Your task to perform on an android device: change the clock style Image 0: 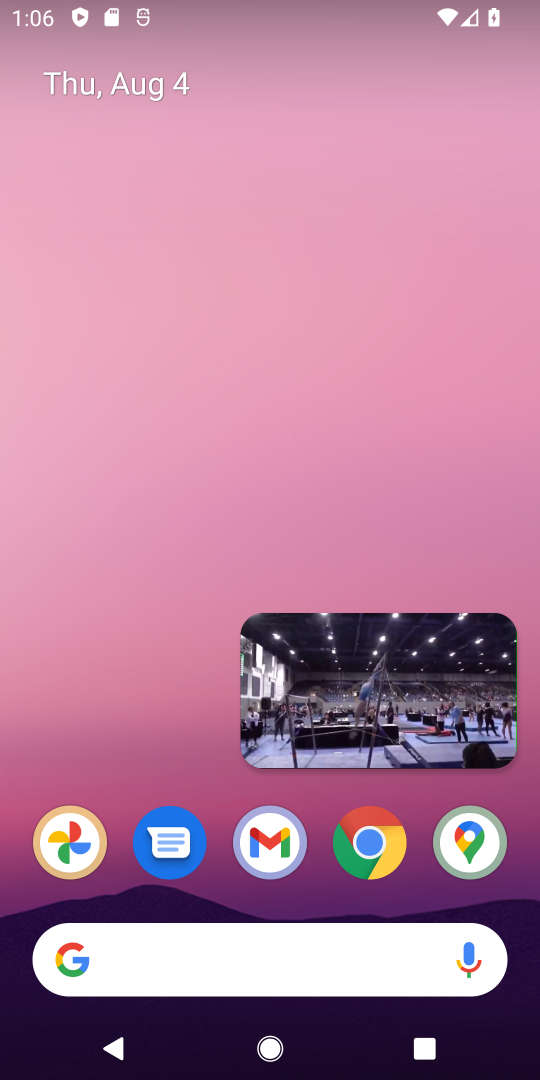
Step 0: drag from (145, 756) to (162, 0)
Your task to perform on an android device: change the clock style Image 1: 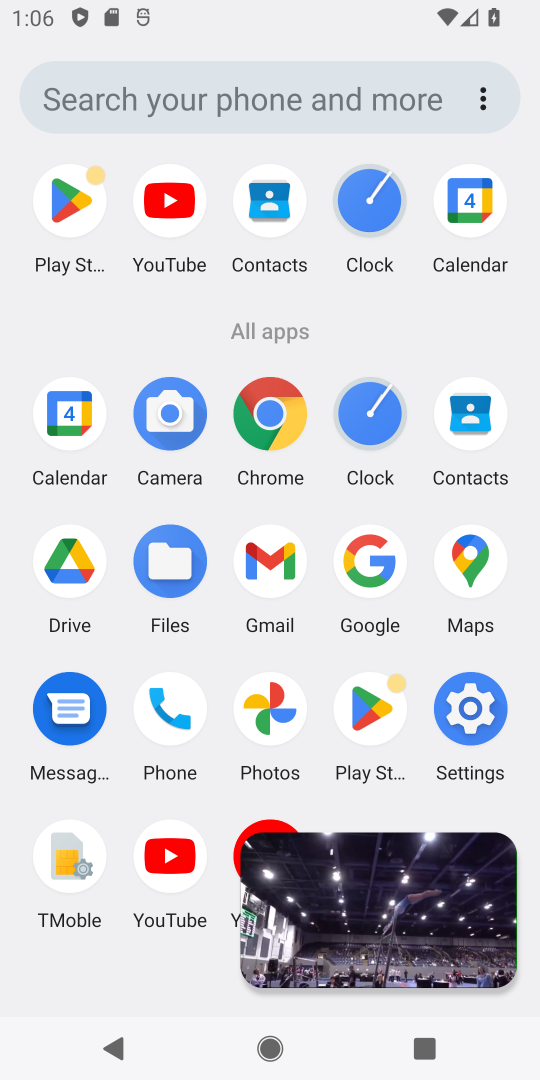
Step 1: click (360, 177)
Your task to perform on an android device: change the clock style Image 2: 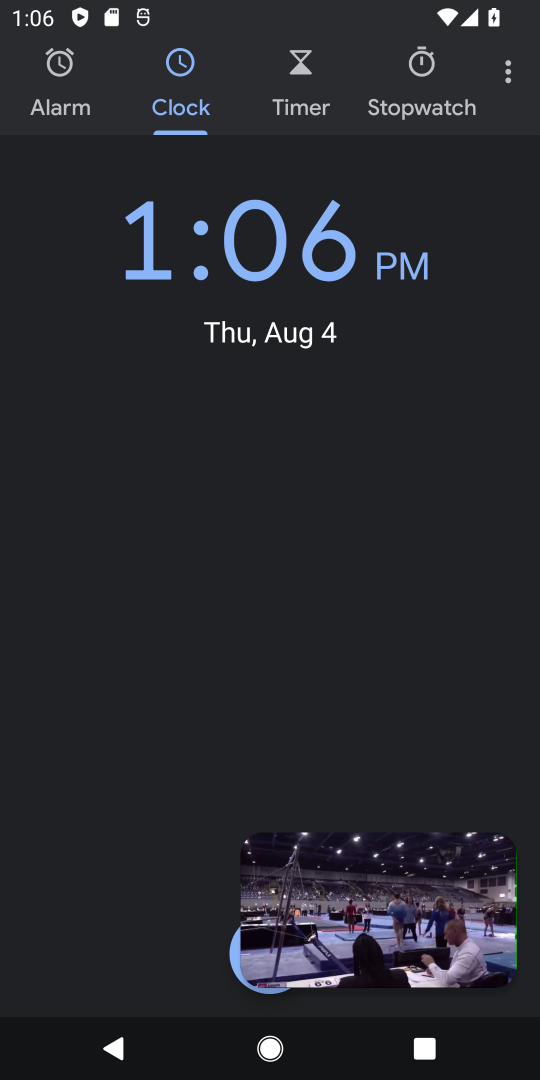
Step 2: click (502, 73)
Your task to perform on an android device: change the clock style Image 3: 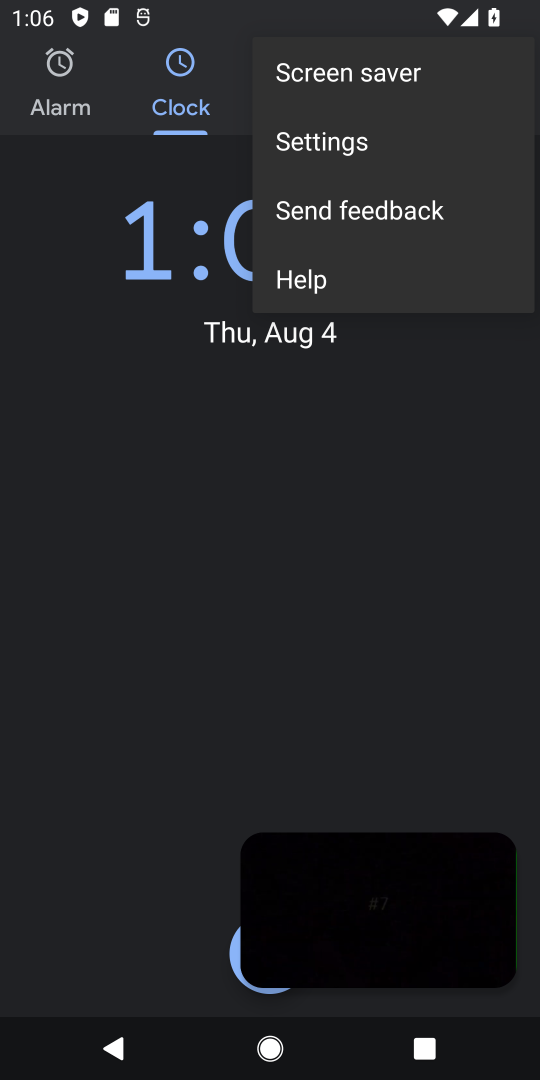
Step 3: click (386, 155)
Your task to perform on an android device: change the clock style Image 4: 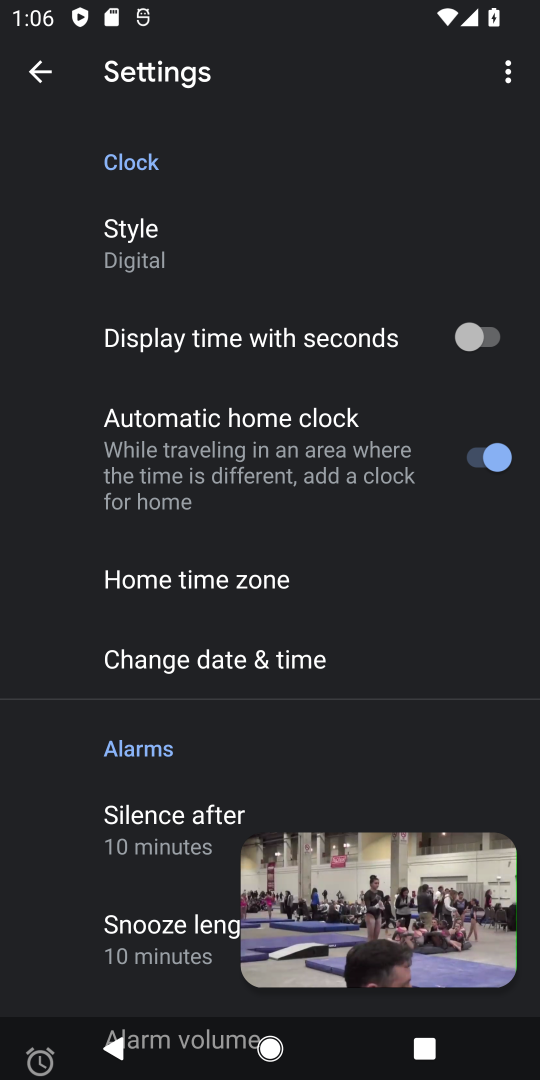
Step 4: click (160, 250)
Your task to perform on an android device: change the clock style Image 5: 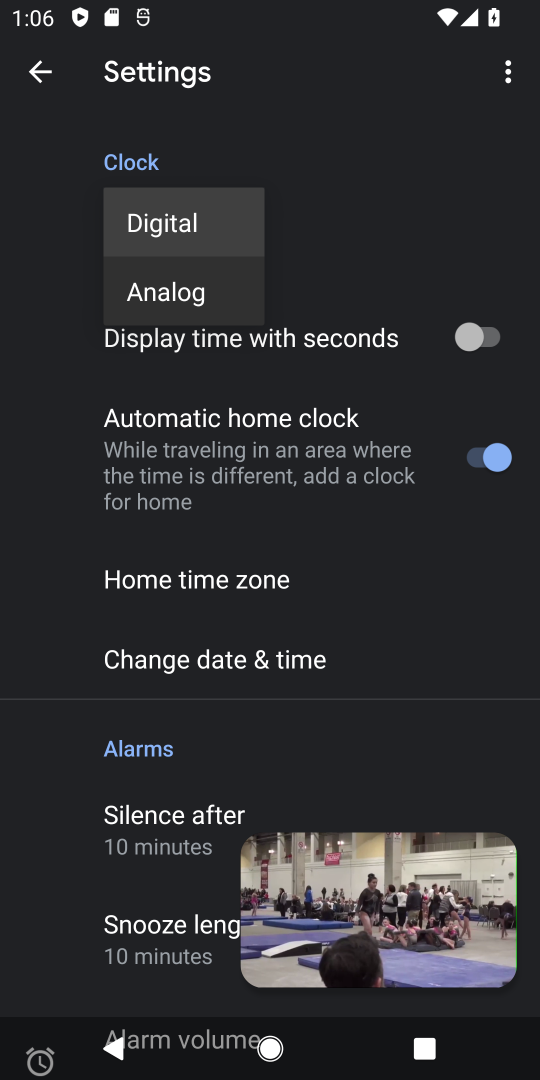
Step 5: click (185, 305)
Your task to perform on an android device: change the clock style Image 6: 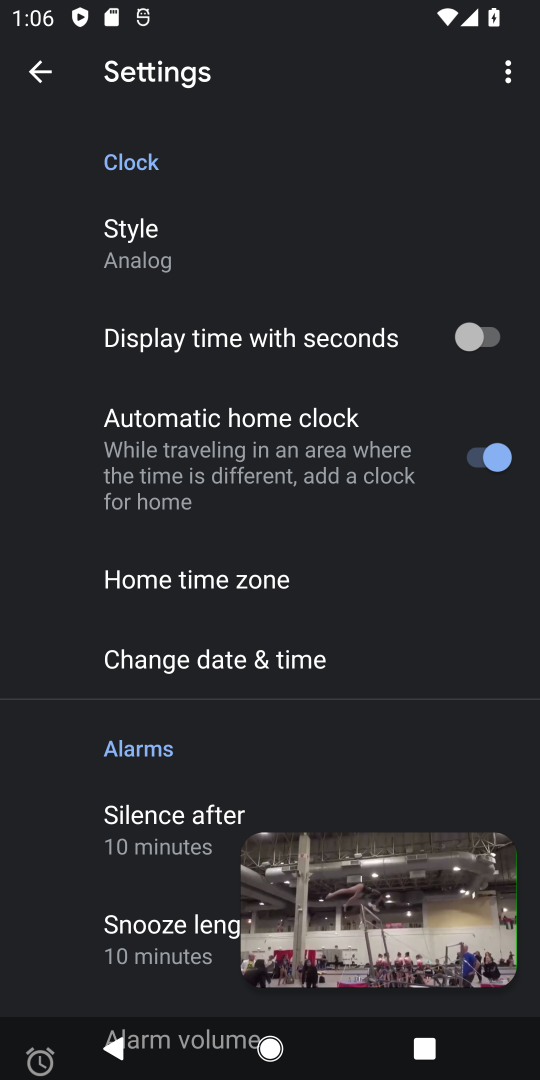
Step 6: task complete